Your task to perform on an android device: Open the web browser Image 0: 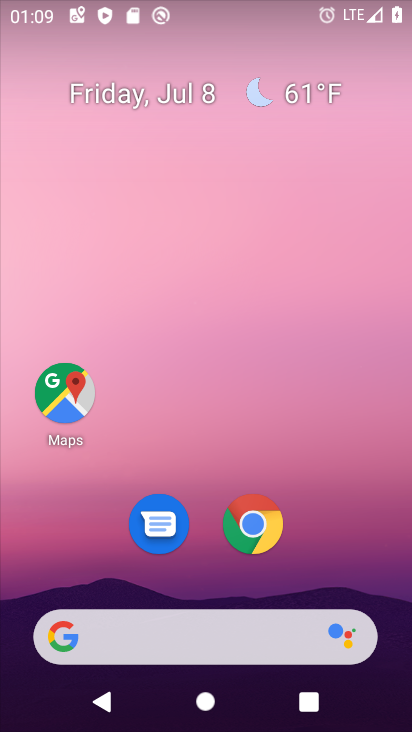
Step 0: click (200, 644)
Your task to perform on an android device: Open the web browser Image 1: 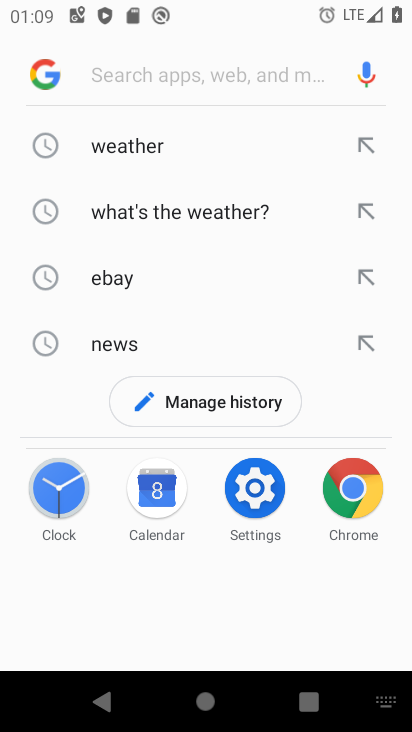
Step 1: task complete